Your task to perform on an android device: stop showing notifications on the lock screen Image 0: 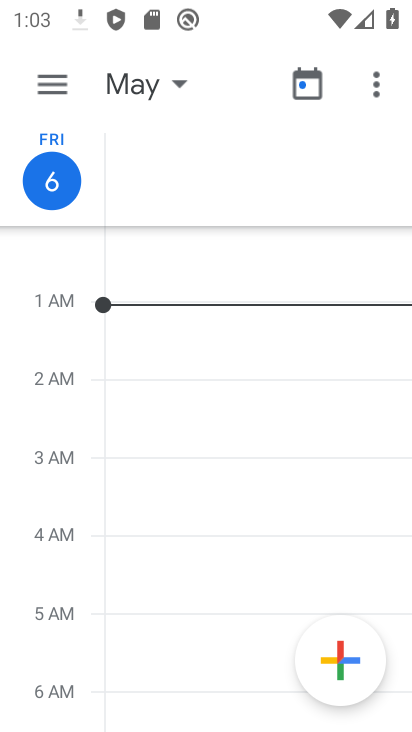
Step 0: press back button
Your task to perform on an android device: stop showing notifications on the lock screen Image 1: 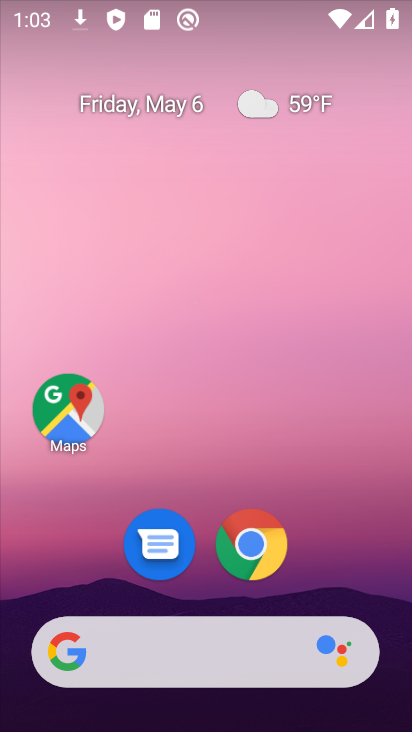
Step 1: drag from (79, 612) to (245, 125)
Your task to perform on an android device: stop showing notifications on the lock screen Image 2: 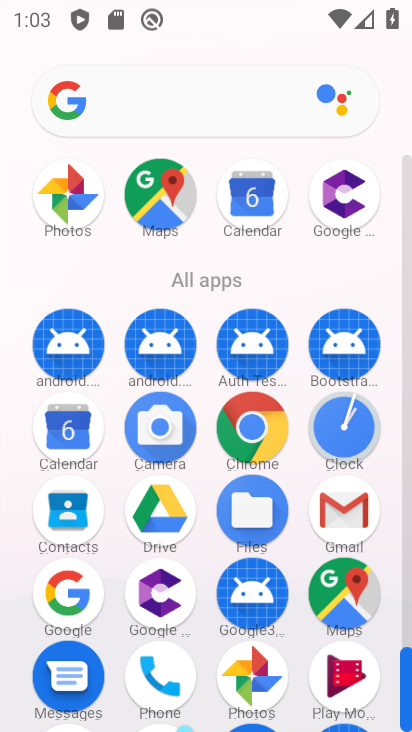
Step 2: drag from (139, 621) to (210, 365)
Your task to perform on an android device: stop showing notifications on the lock screen Image 3: 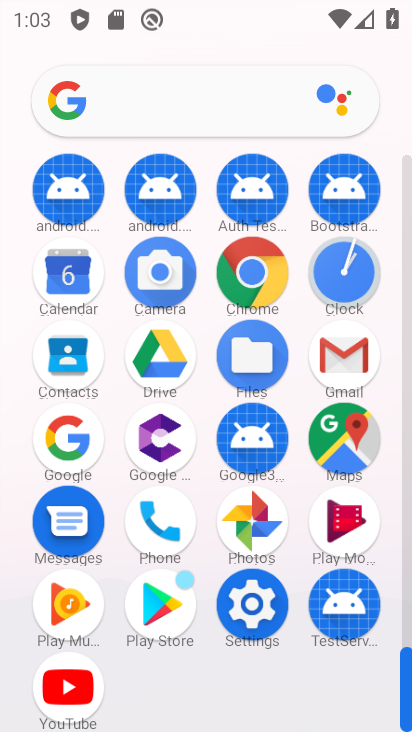
Step 3: click (243, 607)
Your task to perform on an android device: stop showing notifications on the lock screen Image 4: 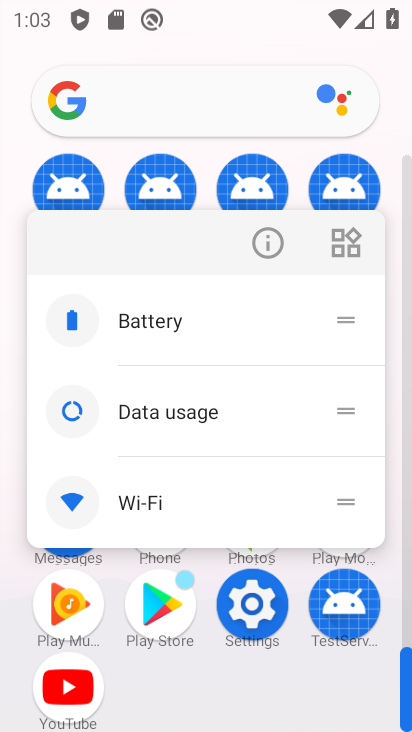
Step 4: click (256, 592)
Your task to perform on an android device: stop showing notifications on the lock screen Image 5: 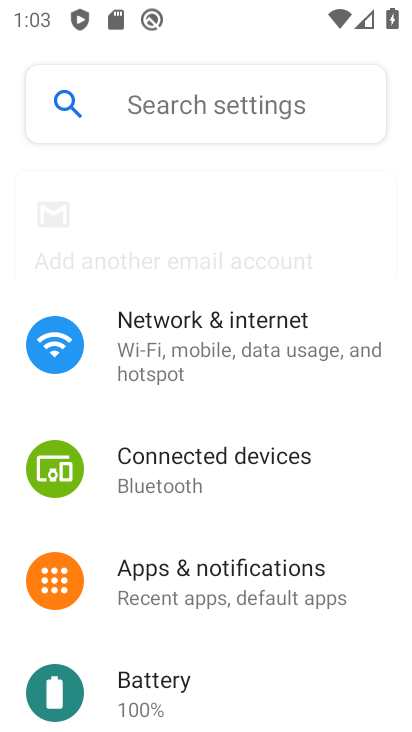
Step 5: drag from (199, 620) to (324, 207)
Your task to perform on an android device: stop showing notifications on the lock screen Image 6: 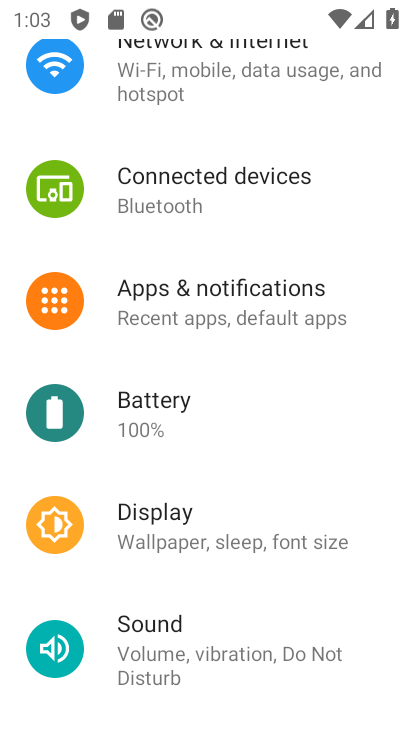
Step 6: click (223, 295)
Your task to perform on an android device: stop showing notifications on the lock screen Image 7: 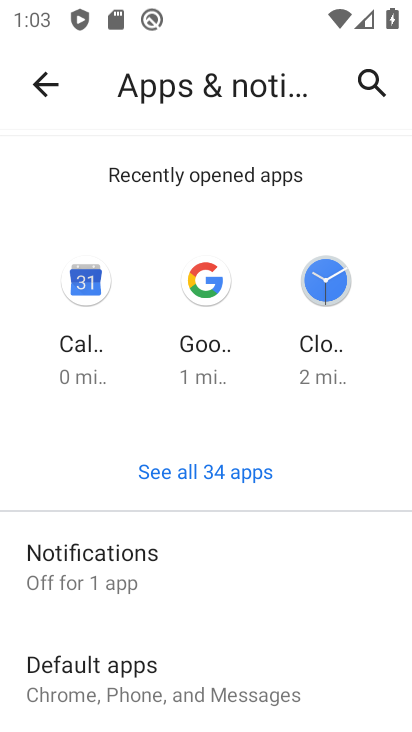
Step 7: click (139, 572)
Your task to perform on an android device: stop showing notifications on the lock screen Image 8: 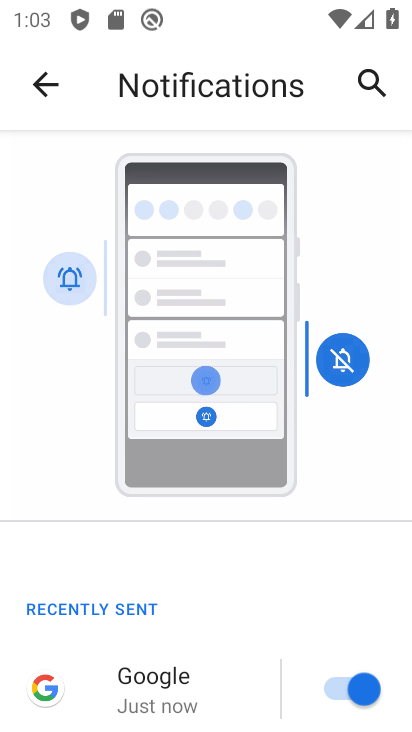
Step 8: drag from (148, 632) to (301, 189)
Your task to perform on an android device: stop showing notifications on the lock screen Image 9: 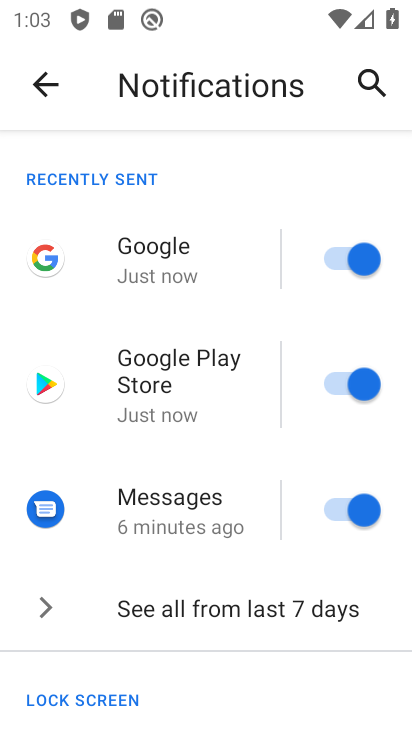
Step 9: drag from (146, 575) to (252, 199)
Your task to perform on an android device: stop showing notifications on the lock screen Image 10: 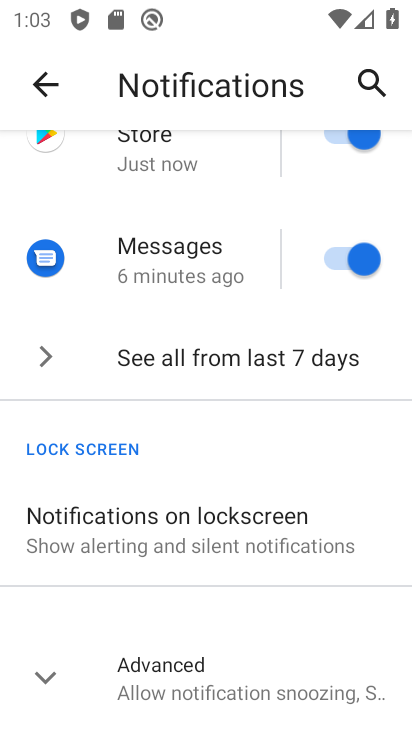
Step 10: click (167, 538)
Your task to perform on an android device: stop showing notifications on the lock screen Image 11: 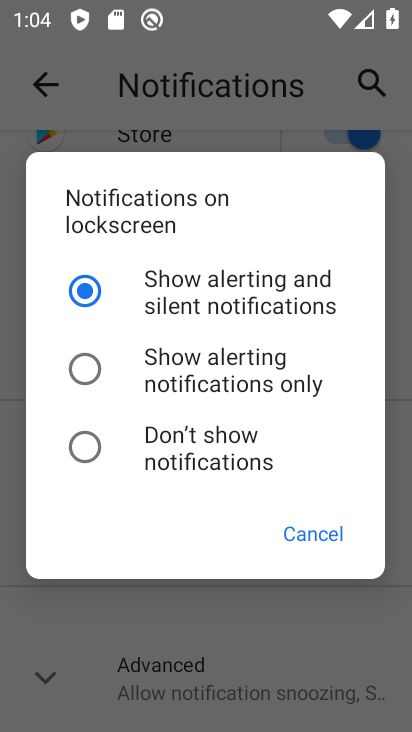
Step 11: click (180, 457)
Your task to perform on an android device: stop showing notifications on the lock screen Image 12: 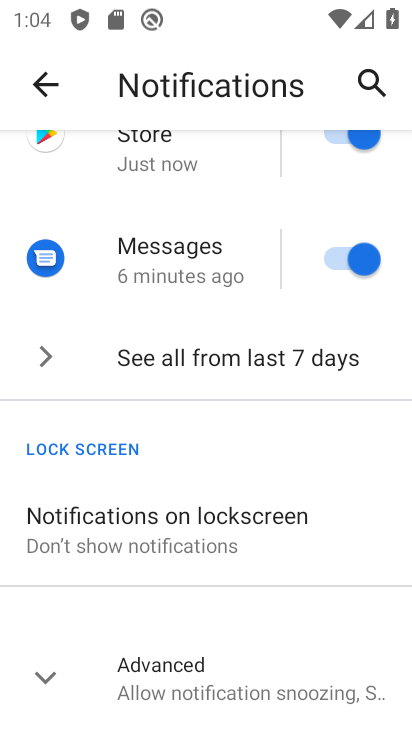
Step 12: task complete